Your task to perform on an android device: turn on priority inbox in the gmail app Image 0: 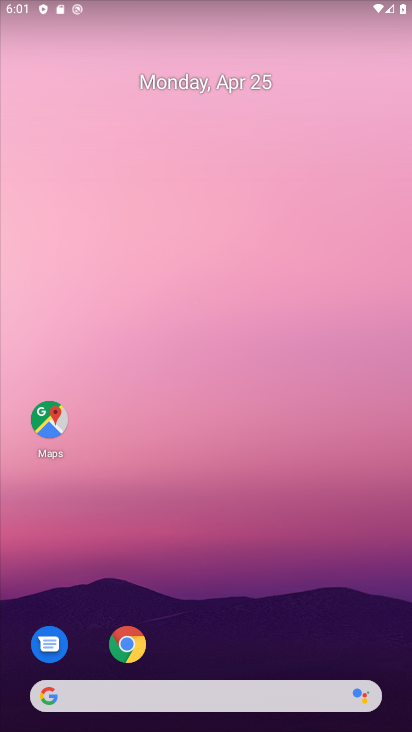
Step 0: drag from (257, 567) to (284, 114)
Your task to perform on an android device: turn on priority inbox in the gmail app Image 1: 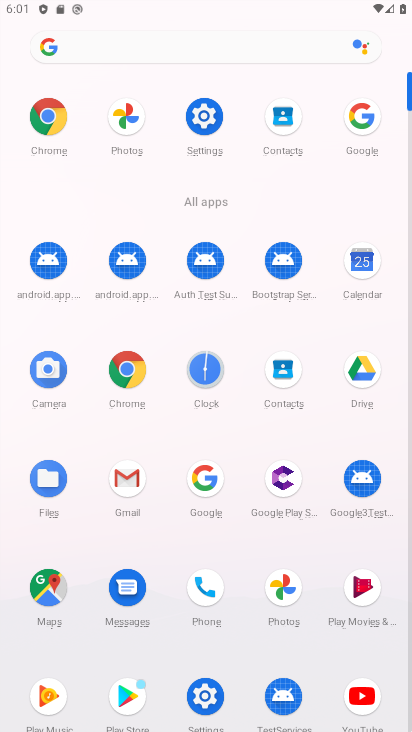
Step 1: click (132, 479)
Your task to perform on an android device: turn on priority inbox in the gmail app Image 2: 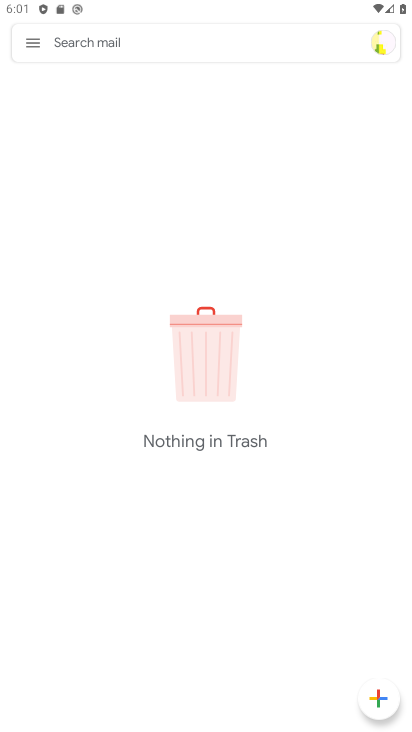
Step 2: click (30, 38)
Your task to perform on an android device: turn on priority inbox in the gmail app Image 3: 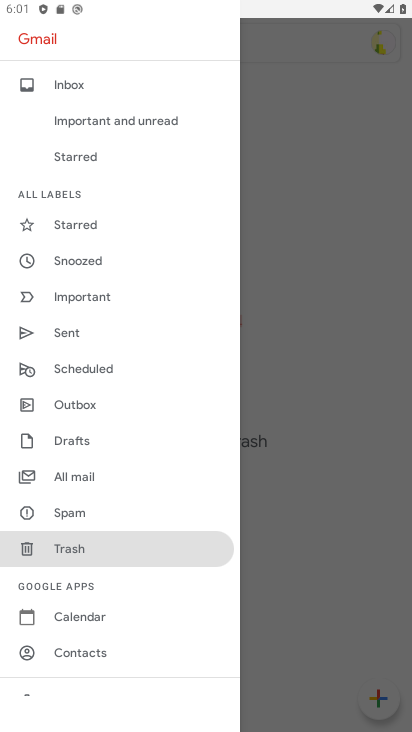
Step 3: drag from (164, 527) to (142, 222)
Your task to perform on an android device: turn on priority inbox in the gmail app Image 4: 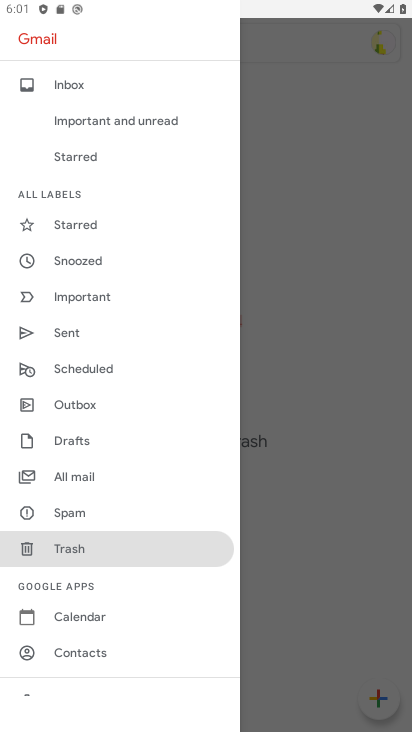
Step 4: drag from (130, 511) to (116, 235)
Your task to perform on an android device: turn on priority inbox in the gmail app Image 5: 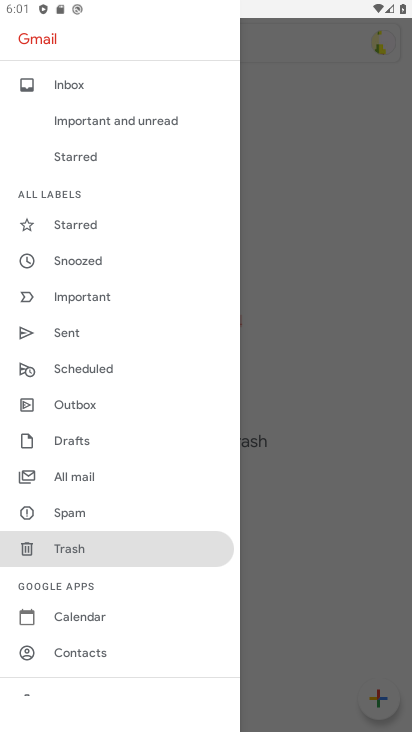
Step 5: drag from (128, 592) to (114, 180)
Your task to perform on an android device: turn on priority inbox in the gmail app Image 6: 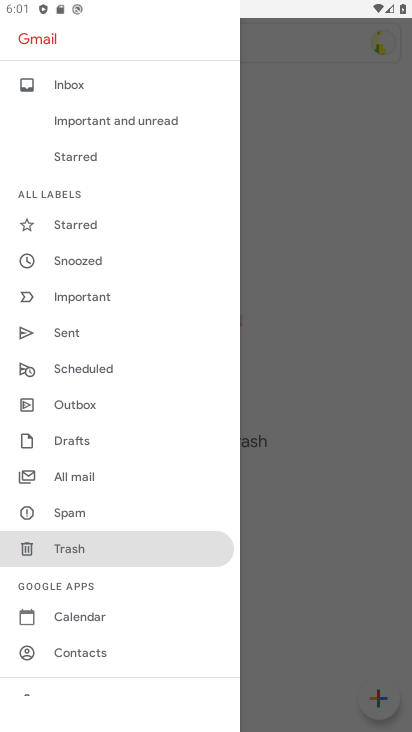
Step 6: drag from (140, 461) to (130, 101)
Your task to perform on an android device: turn on priority inbox in the gmail app Image 7: 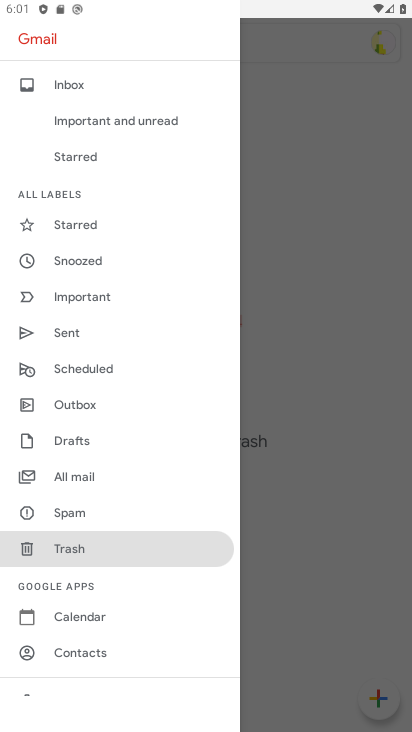
Step 7: drag from (159, 593) to (193, 133)
Your task to perform on an android device: turn on priority inbox in the gmail app Image 8: 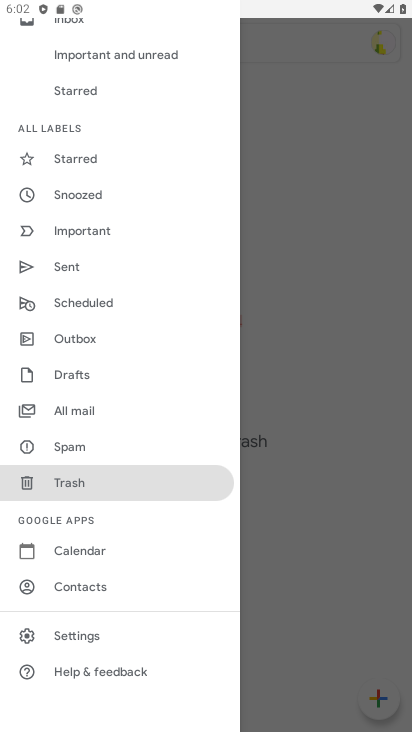
Step 8: click (89, 635)
Your task to perform on an android device: turn on priority inbox in the gmail app Image 9: 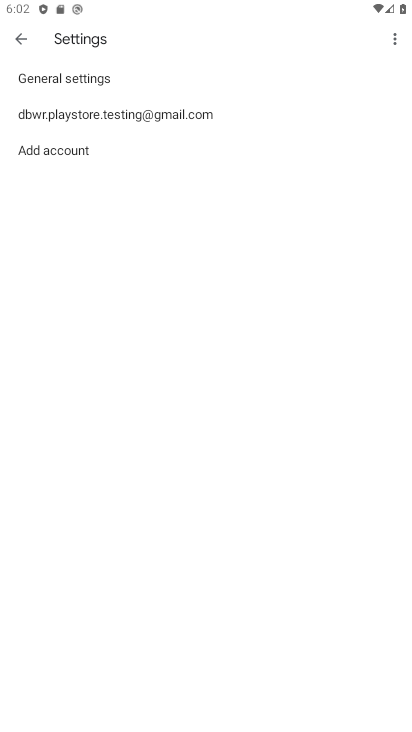
Step 9: click (122, 117)
Your task to perform on an android device: turn on priority inbox in the gmail app Image 10: 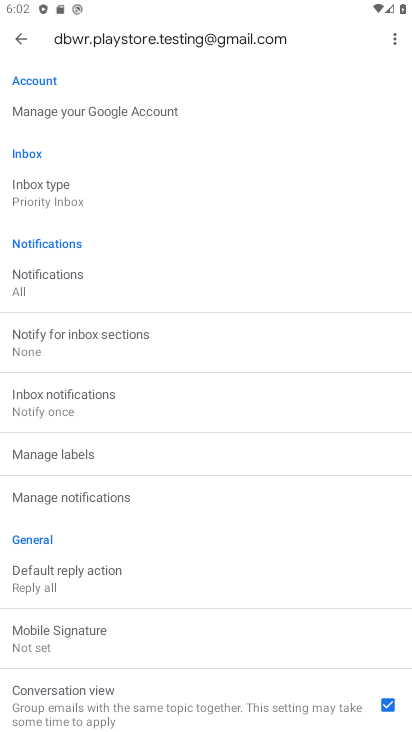
Step 10: task complete